Your task to perform on an android device: toggle notifications settings in the gmail app Image 0: 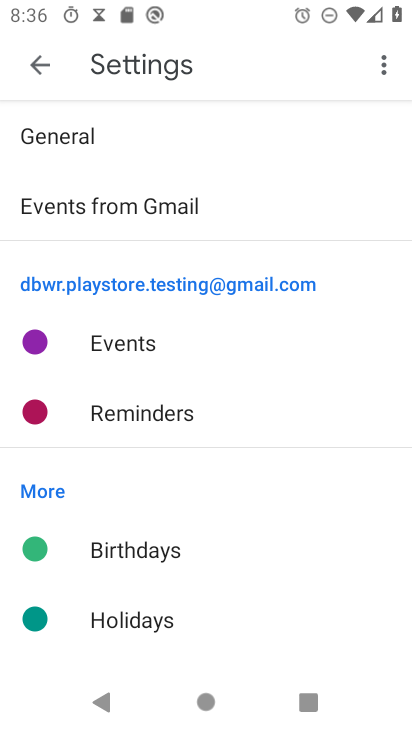
Step 0: press home button
Your task to perform on an android device: toggle notifications settings in the gmail app Image 1: 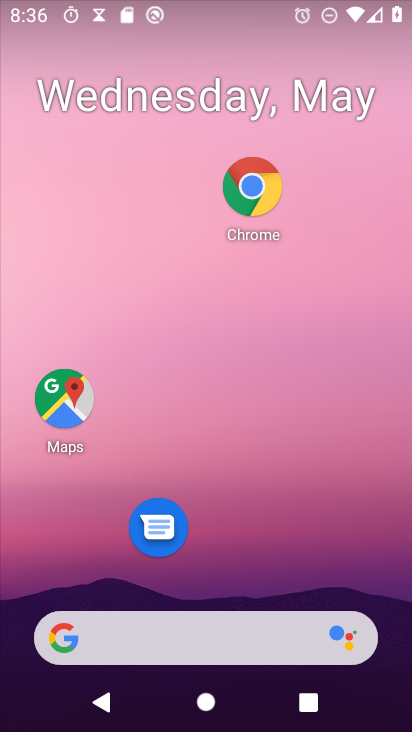
Step 1: drag from (302, 528) to (359, 56)
Your task to perform on an android device: toggle notifications settings in the gmail app Image 2: 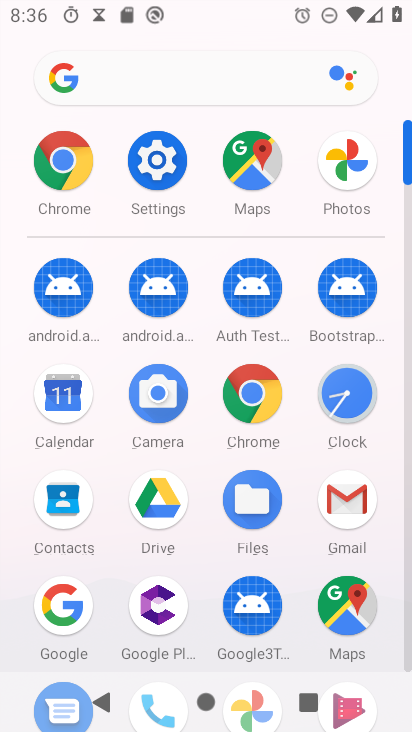
Step 2: click (340, 493)
Your task to perform on an android device: toggle notifications settings in the gmail app Image 3: 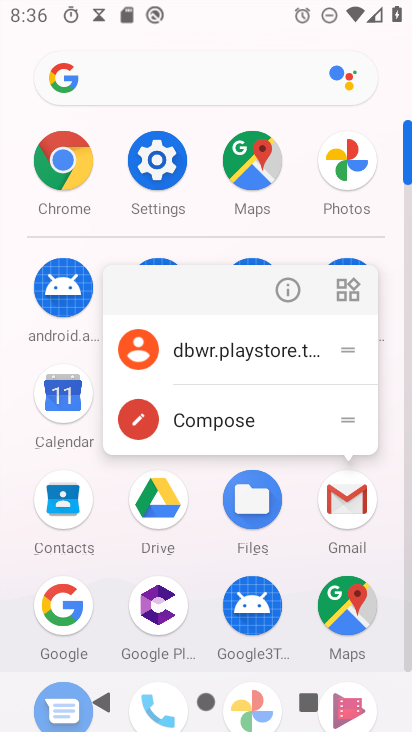
Step 3: click (291, 294)
Your task to perform on an android device: toggle notifications settings in the gmail app Image 4: 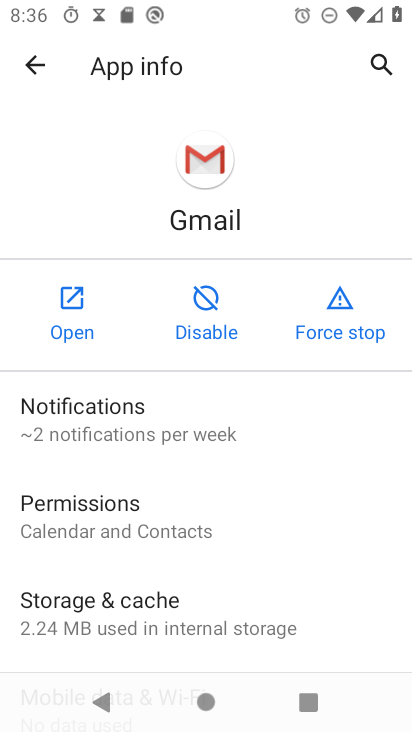
Step 4: click (160, 436)
Your task to perform on an android device: toggle notifications settings in the gmail app Image 5: 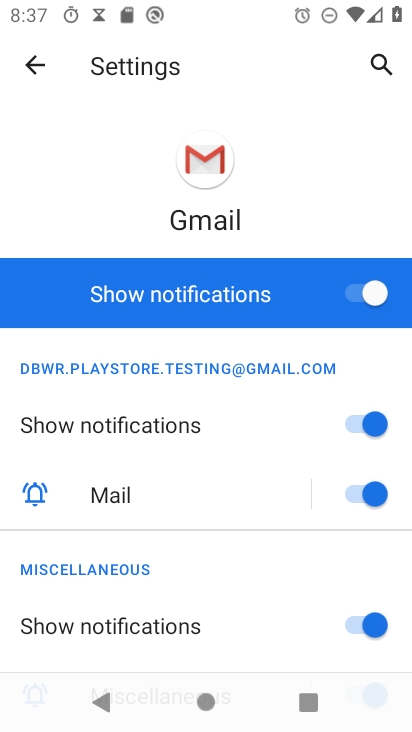
Step 5: click (350, 294)
Your task to perform on an android device: toggle notifications settings in the gmail app Image 6: 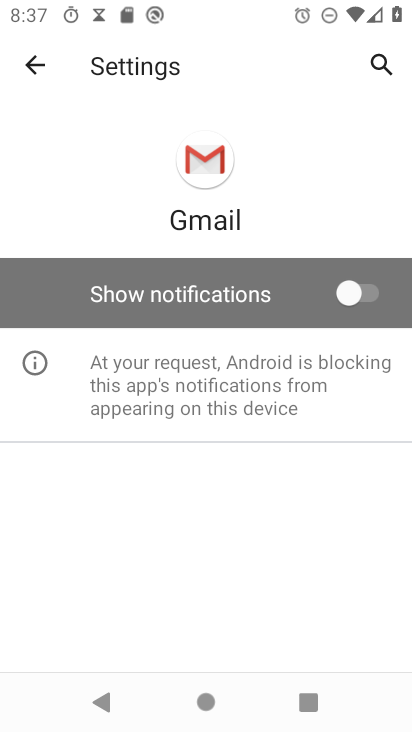
Step 6: task complete